Your task to perform on an android device: change the clock display to digital Image 0: 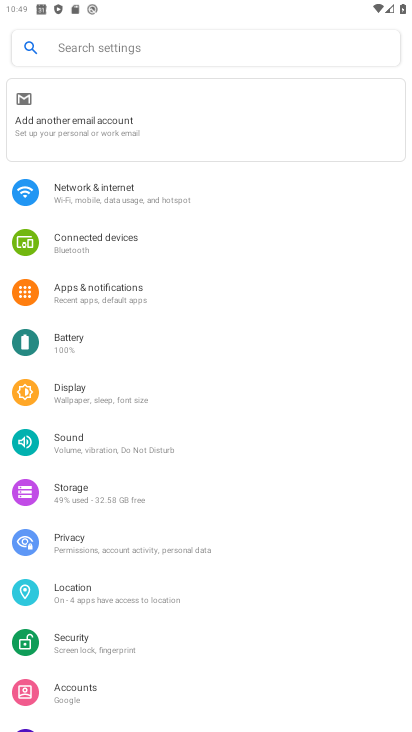
Step 0: press home button
Your task to perform on an android device: change the clock display to digital Image 1: 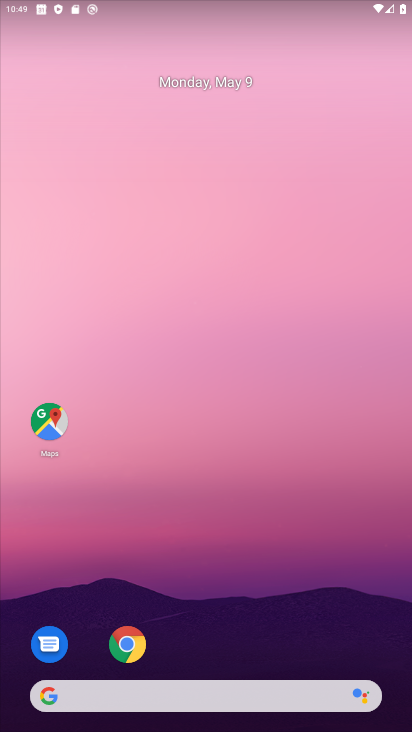
Step 1: drag from (243, 624) to (379, 292)
Your task to perform on an android device: change the clock display to digital Image 2: 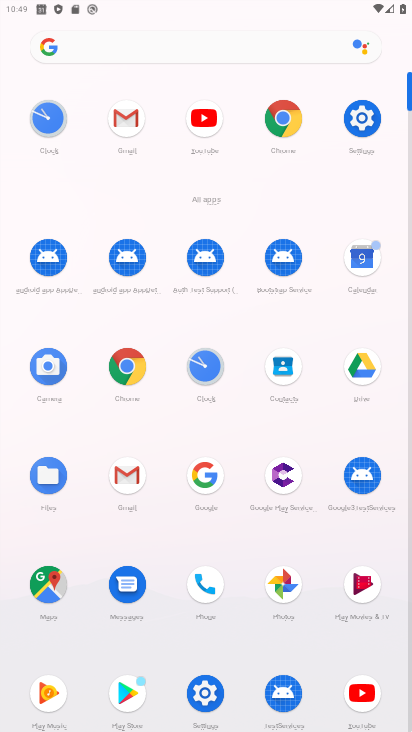
Step 2: click (201, 373)
Your task to perform on an android device: change the clock display to digital Image 3: 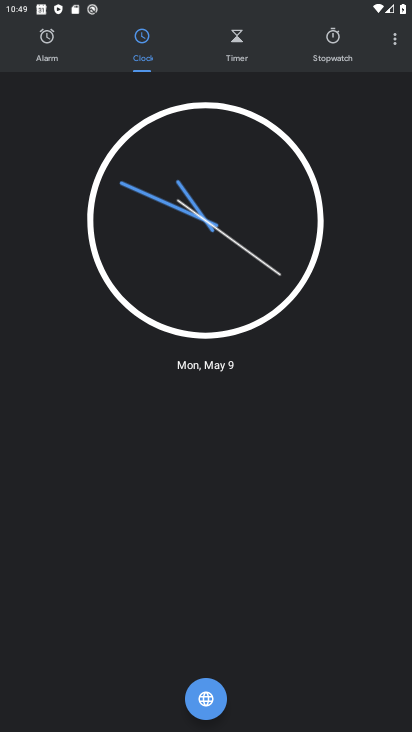
Step 3: click (393, 39)
Your task to perform on an android device: change the clock display to digital Image 4: 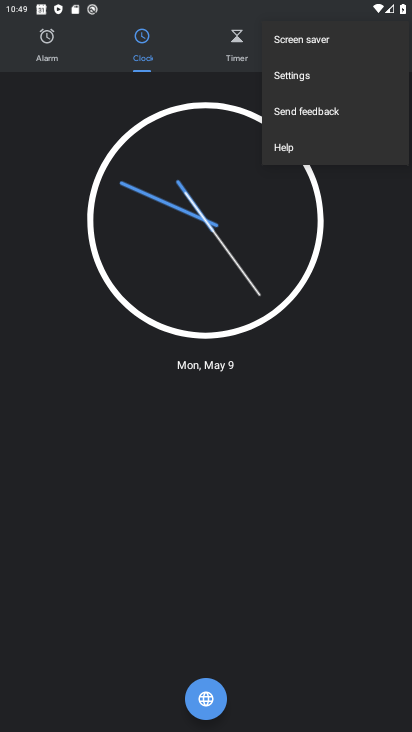
Step 4: click (301, 69)
Your task to perform on an android device: change the clock display to digital Image 5: 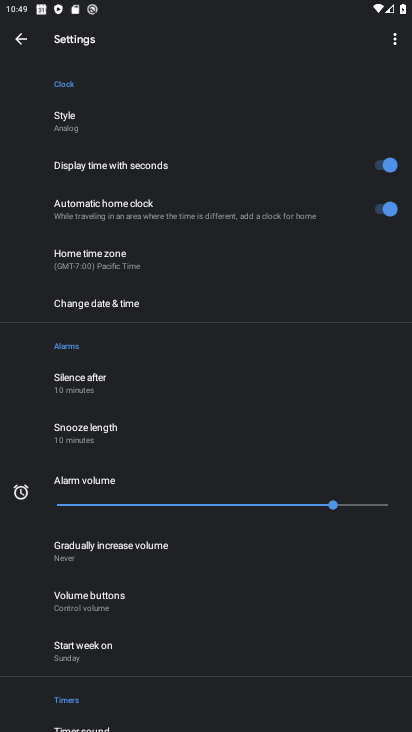
Step 5: click (75, 140)
Your task to perform on an android device: change the clock display to digital Image 6: 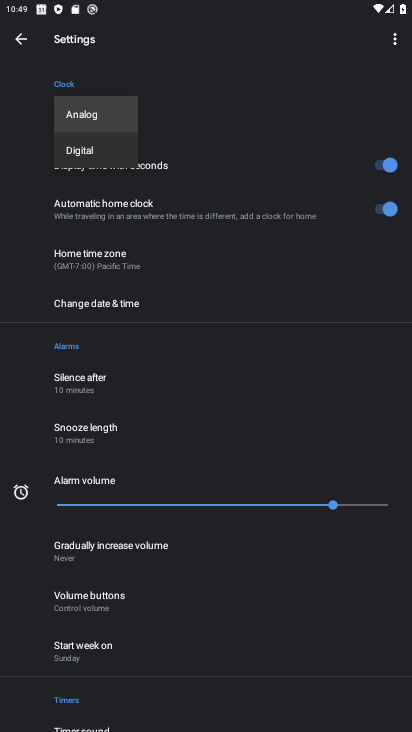
Step 6: click (94, 147)
Your task to perform on an android device: change the clock display to digital Image 7: 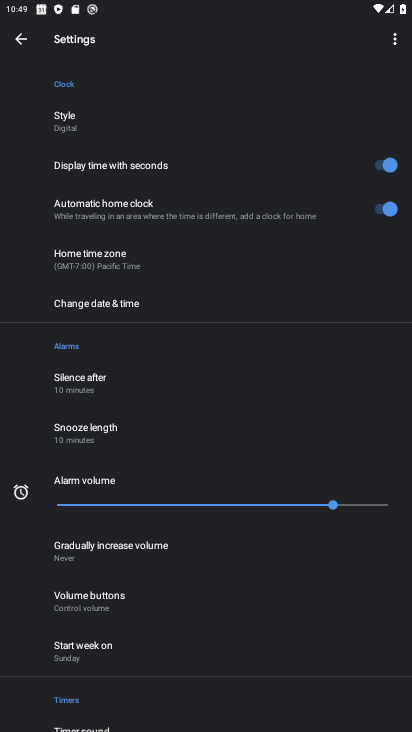
Step 7: task complete